Your task to perform on an android device: turn off sleep mode Image 0: 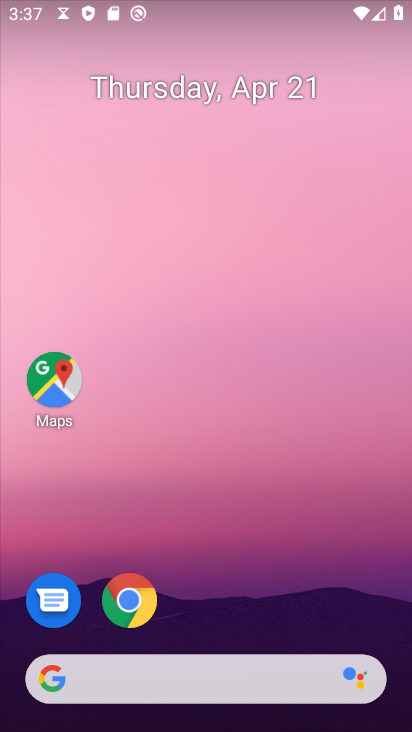
Step 0: drag from (217, 599) to (203, 33)
Your task to perform on an android device: turn off sleep mode Image 1: 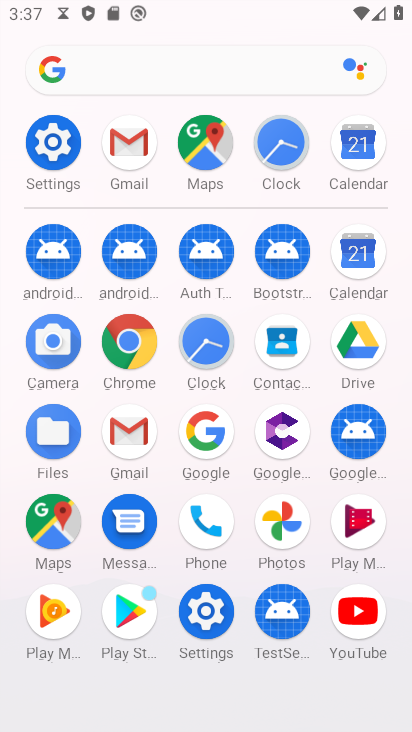
Step 1: click (54, 141)
Your task to perform on an android device: turn off sleep mode Image 2: 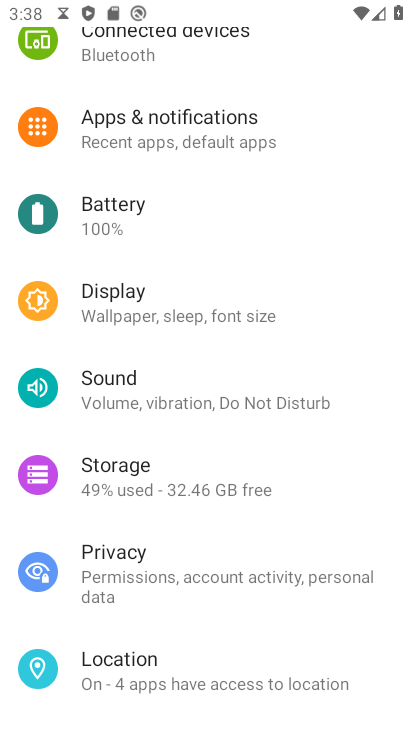
Step 2: drag from (196, 262) to (197, 358)
Your task to perform on an android device: turn off sleep mode Image 3: 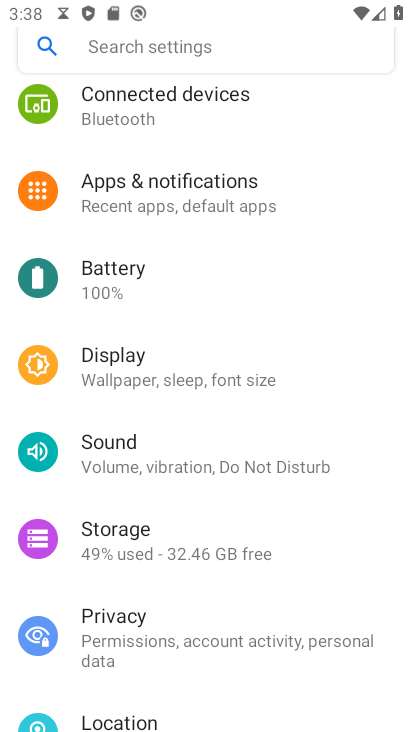
Step 3: click (175, 372)
Your task to perform on an android device: turn off sleep mode Image 4: 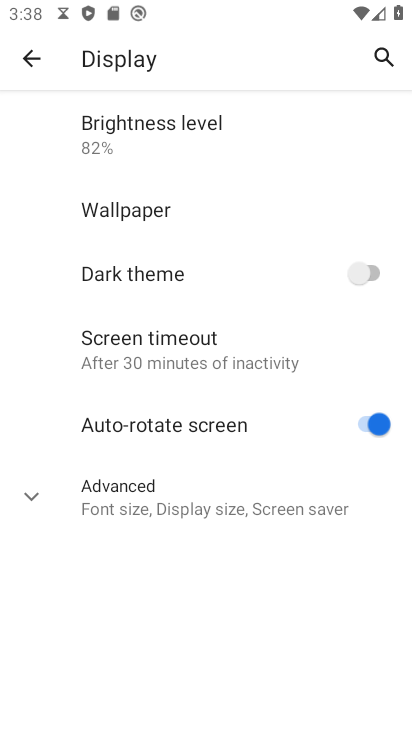
Step 4: drag from (169, 396) to (215, 251)
Your task to perform on an android device: turn off sleep mode Image 5: 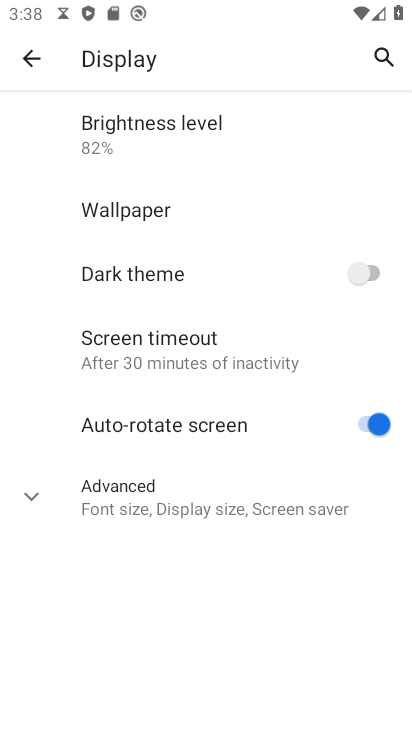
Step 5: click (151, 338)
Your task to perform on an android device: turn off sleep mode Image 6: 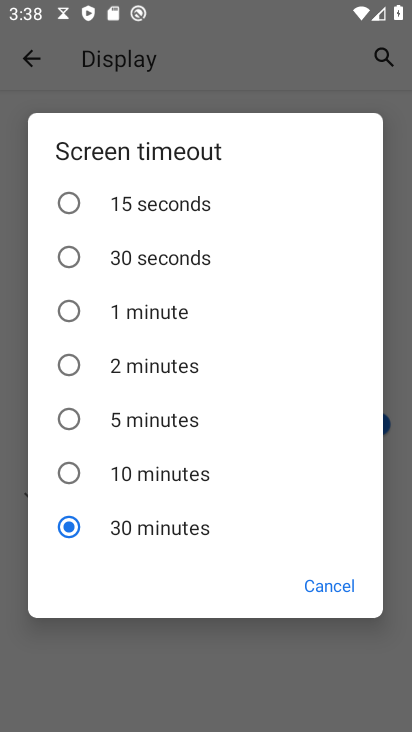
Step 6: click (335, 585)
Your task to perform on an android device: turn off sleep mode Image 7: 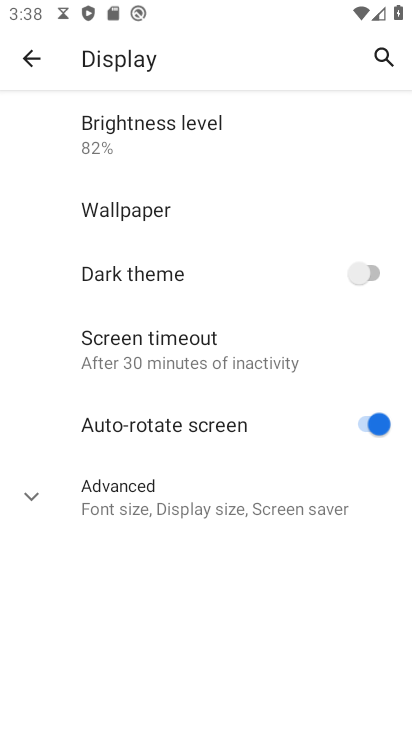
Step 7: click (129, 500)
Your task to perform on an android device: turn off sleep mode Image 8: 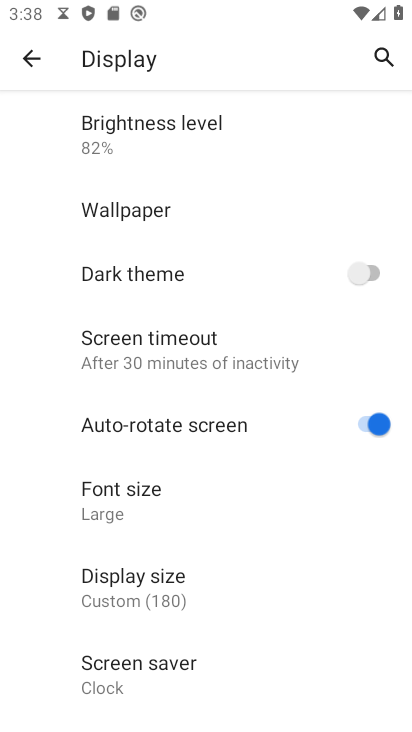
Step 8: task complete